Your task to perform on an android device: Check the news Image 0: 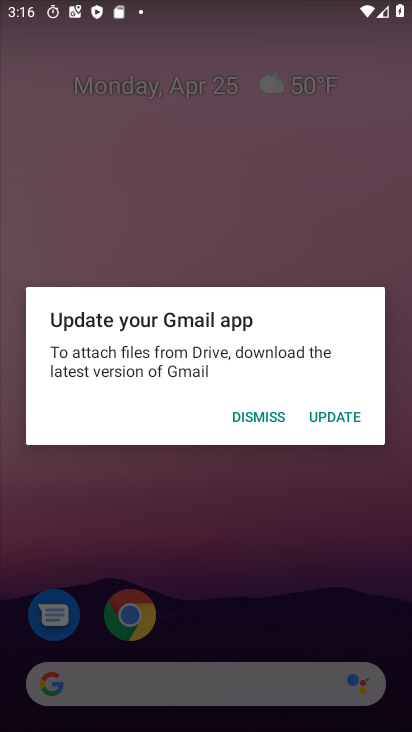
Step 0: press home button
Your task to perform on an android device: Check the news Image 1: 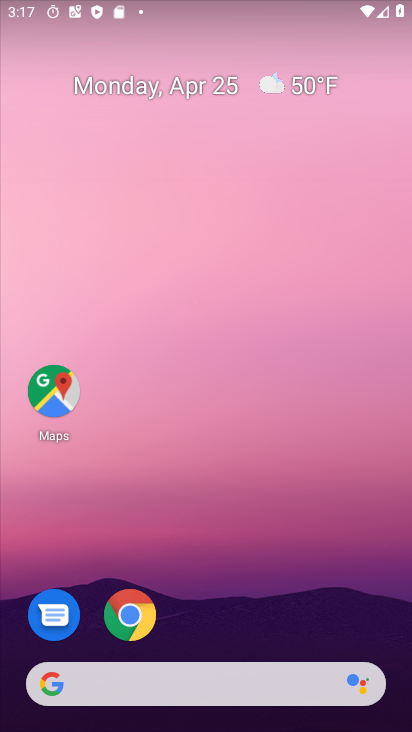
Step 1: task complete